Your task to perform on an android device: turn notification dots on Image 0: 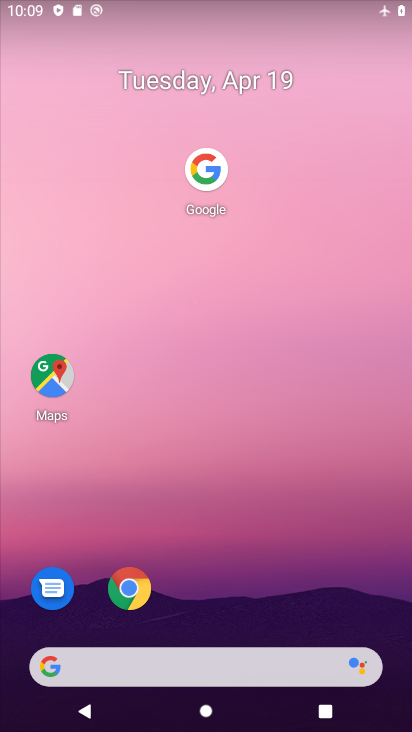
Step 0: drag from (293, 136) to (311, 67)
Your task to perform on an android device: turn notification dots on Image 1: 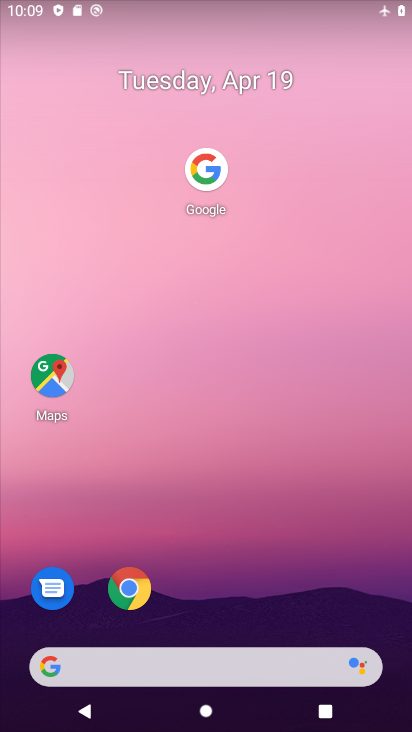
Step 1: drag from (244, 638) to (120, 4)
Your task to perform on an android device: turn notification dots on Image 2: 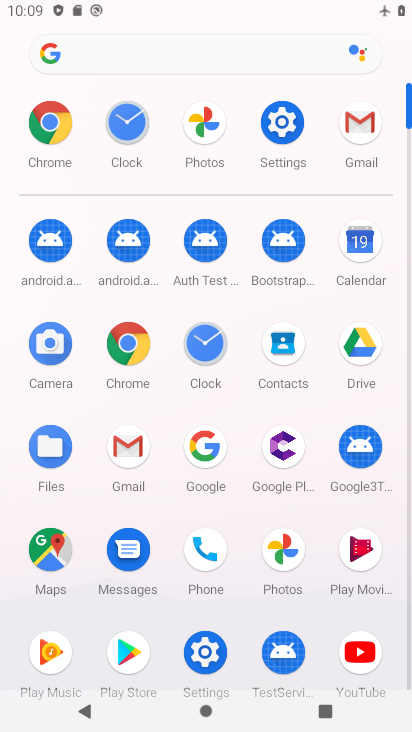
Step 2: click (279, 130)
Your task to perform on an android device: turn notification dots on Image 3: 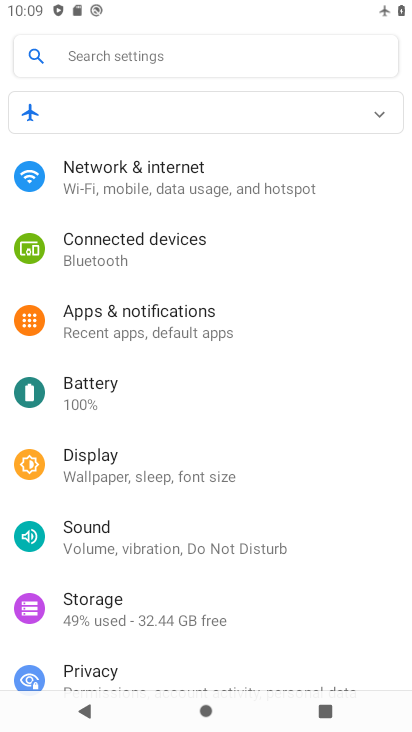
Step 3: click (157, 312)
Your task to perform on an android device: turn notification dots on Image 4: 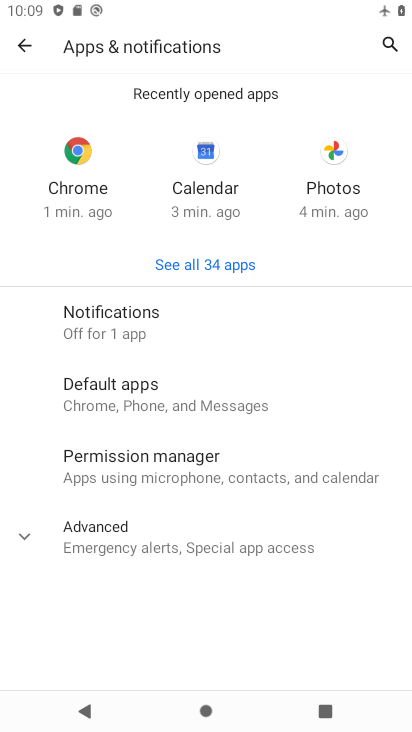
Step 4: click (112, 319)
Your task to perform on an android device: turn notification dots on Image 5: 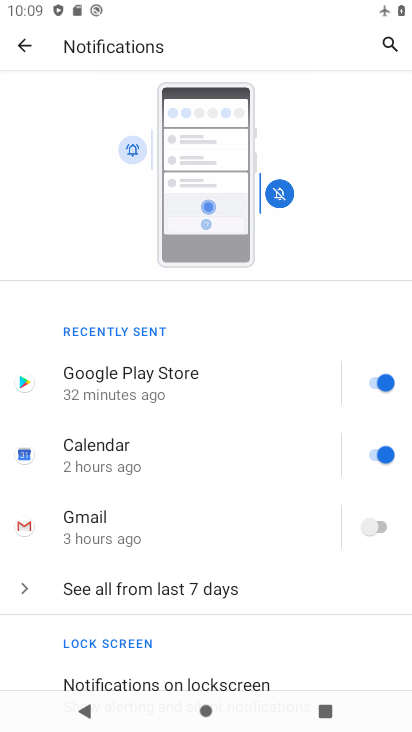
Step 5: drag from (246, 625) to (250, 178)
Your task to perform on an android device: turn notification dots on Image 6: 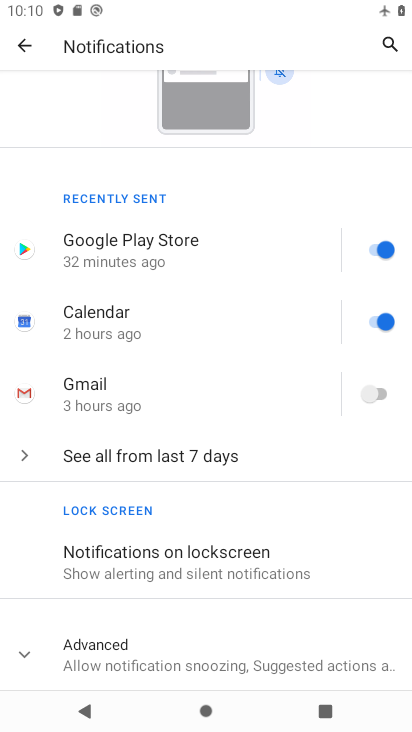
Step 6: click (71, 656)
Your task to perform on an android device: turn notification dots on Image 7: 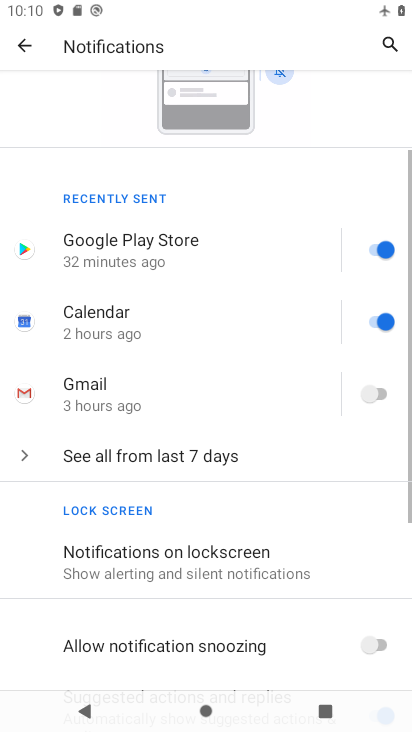
Step 7: drag from (264, 611) to (260, 179)
Your task to perform on an android device: turn notification dots on Image 8: 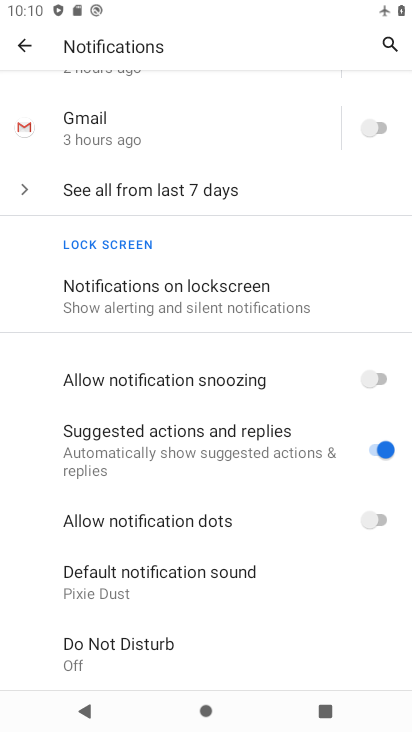
Step 8: click (374, 519)
Your task to perform on an android device: turn notification dots on Image 9: 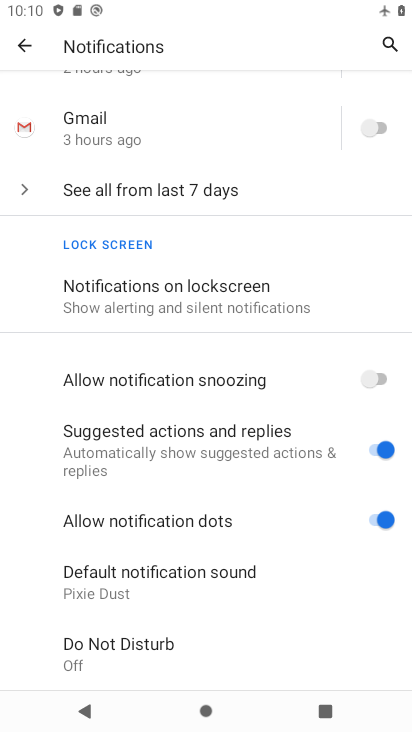
Step 9: task complete